Your task to perform on an android device: Open Google Chrome and open the bookmarks view Image 0: 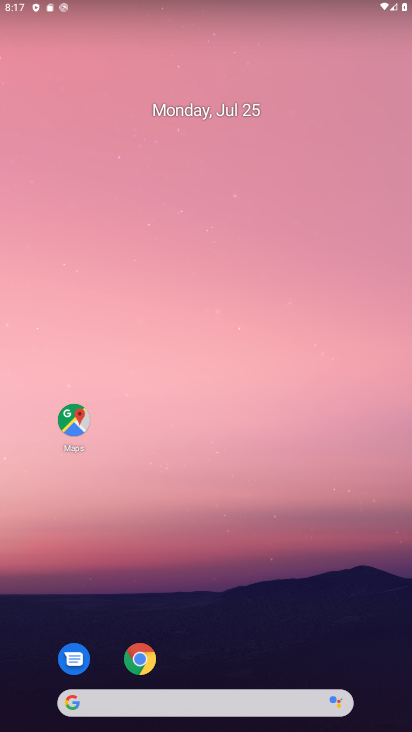
Step 0: drag from (240, 645) to (240, 123)
Your task to perform on an android device: Open Google Chrome and open the bookmarks view Image 1: 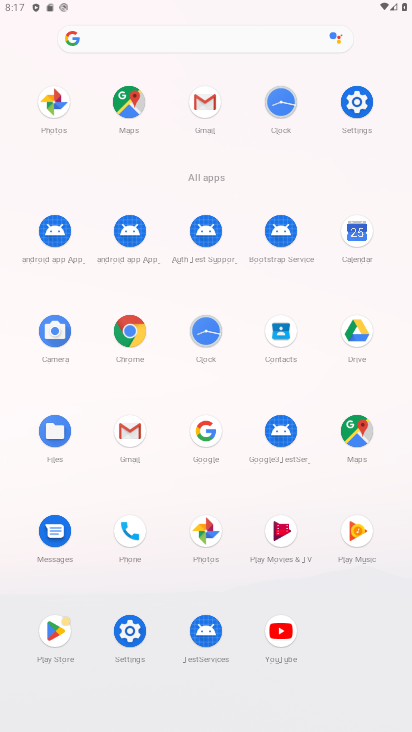
Step 1: click (202, 423)
Your task to perform on an android device: Open Google Chrome and open the bookmarks view Image 2: 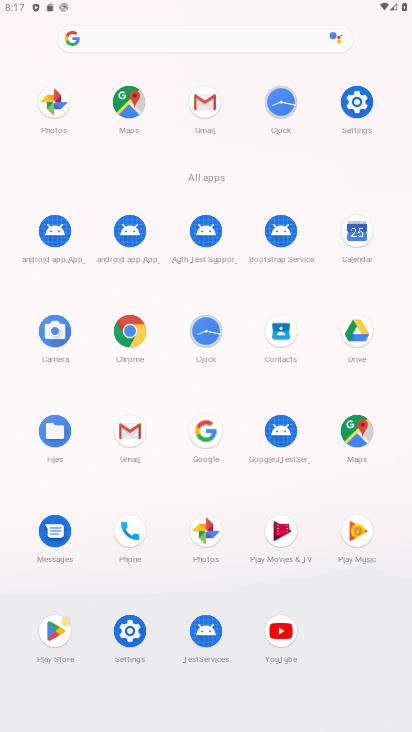
Step 2: click (204, 423)
Your task to perform on an android device: Open Google Chrome and open the bookmarks view Image 3: 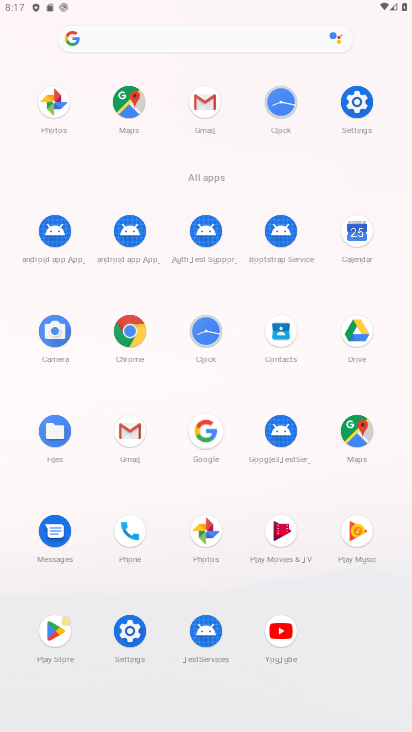
Step 3: click (213, 431)
Your task to perform on an android device: Open Google Chrome and open the bookmarks view Image 4: 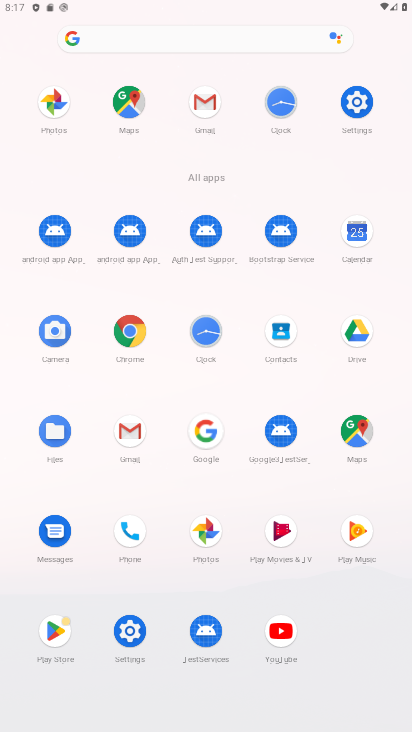
Step 4: click (213, 431)
Your task to perform on an android device: Open Google Chrome and open the bookmarks view Image 5: 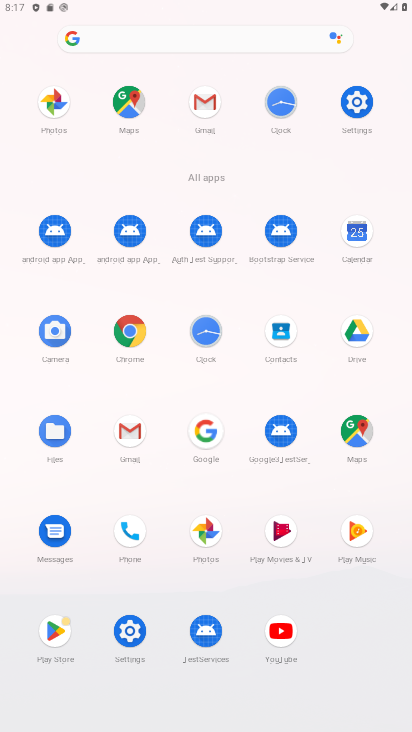
Step 5: click (213, 431)
Your task to perform on an android device: Open Google Chrome and open the bookmarks view Image 6: 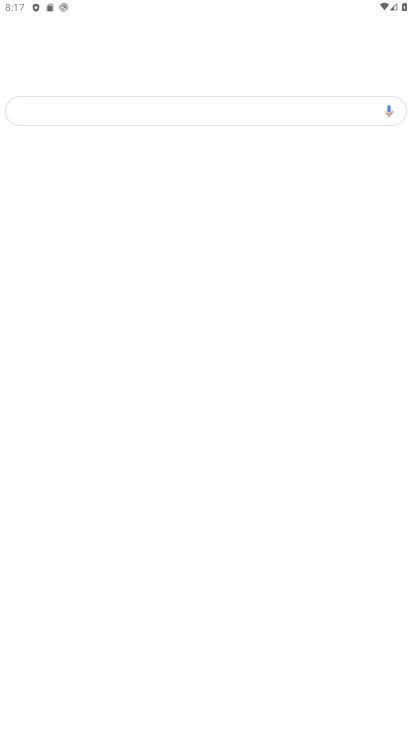
Step 6: click (213, 430)
Your task to perform on an android device: Open Google Chrome and open the bookmarks view Image 7: 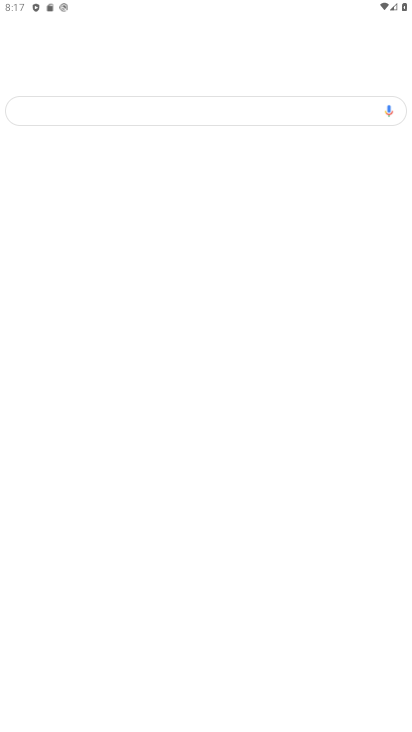
Step 7: click (211, 426)
Your task to perform on an android device: Open Google Chrome and open the bookmarks view Image 8: 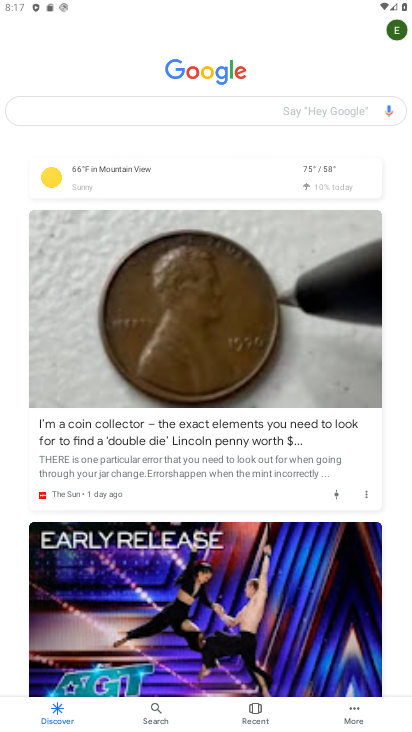
Step 8: press back button
Your task to perform on an android device: Open Google Chrome and open the bookmarks view Image 9: 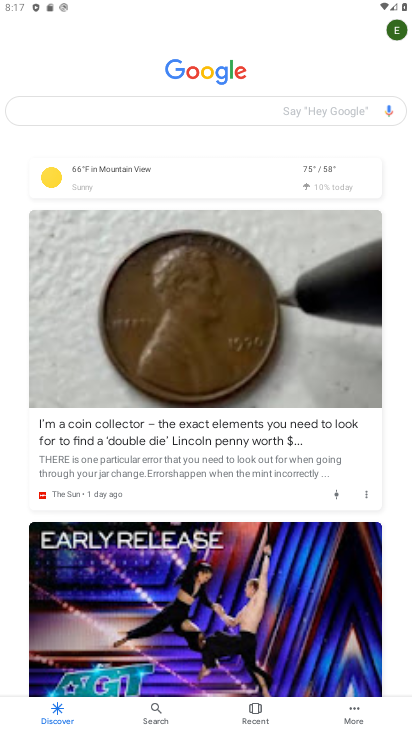
Step 9: press back button
Your task to perform on an android device: Open Google Chrome and open the bookmarks view Image 10: 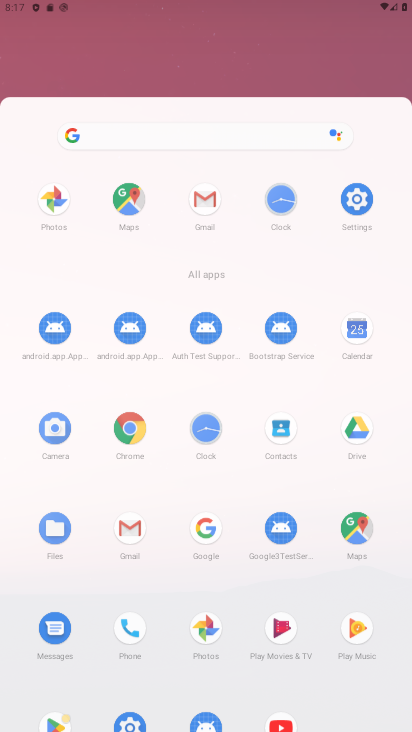
Step 10: press back button
Your task to perform on an android device: Open Google Chrome and open the bookmarks view Image 11: 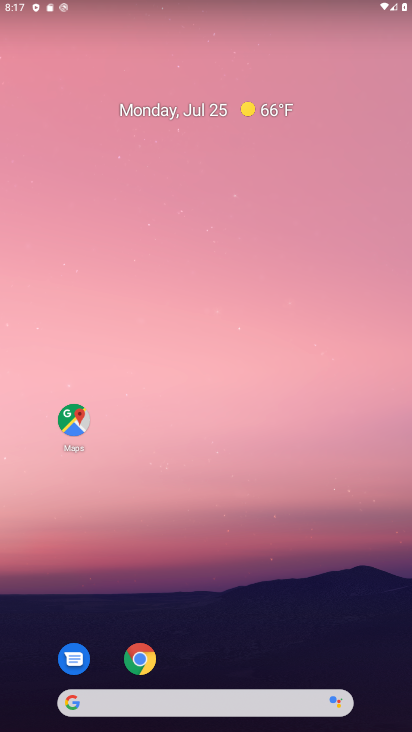
Step 11: drag from (219, 535) to (195, 75)
Your task to perform on an android device: Open Google Chrome and open the bookmarks view Image 12: 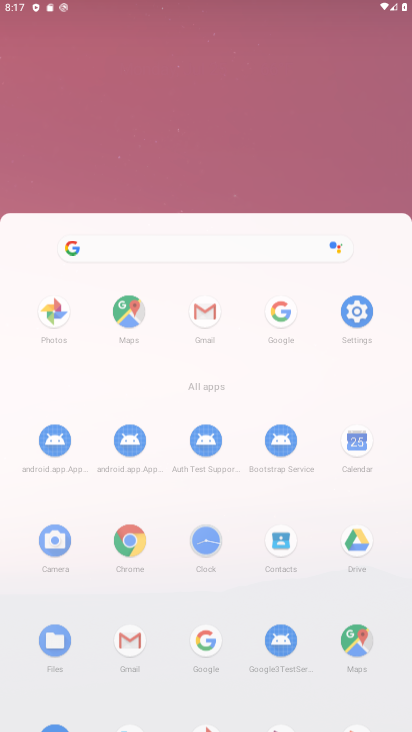
Step 12: drag from (195, 360) to (195, 59)
Your task to perform on an android device: Open Google Chrome and open the bookmarks view Image 13: 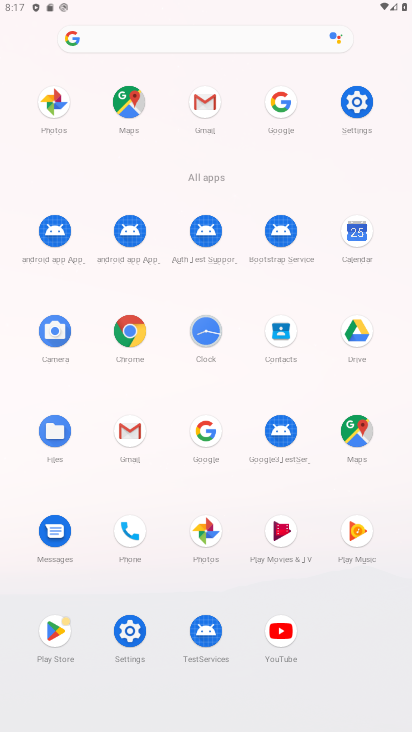
Step 13: drag from (258, 440) to (258, 43)
Your task to perform on an android device: Open Google Chrome and open the bookmarks view Image 14: 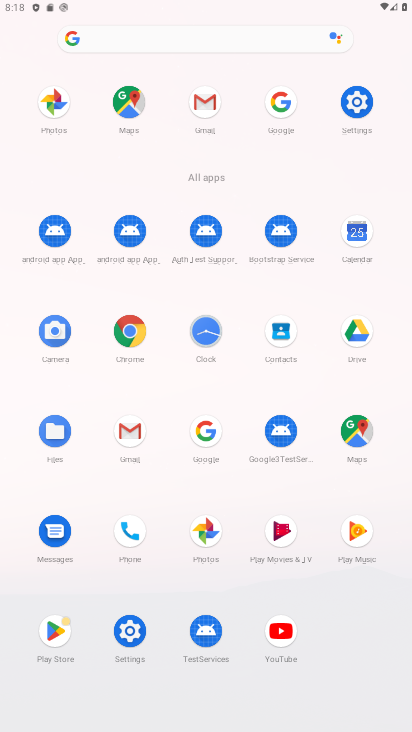
Step 14: click (120, 329)
Your task to perform on an android device: Open Google Chrome and open the bookmarks view Image 15: 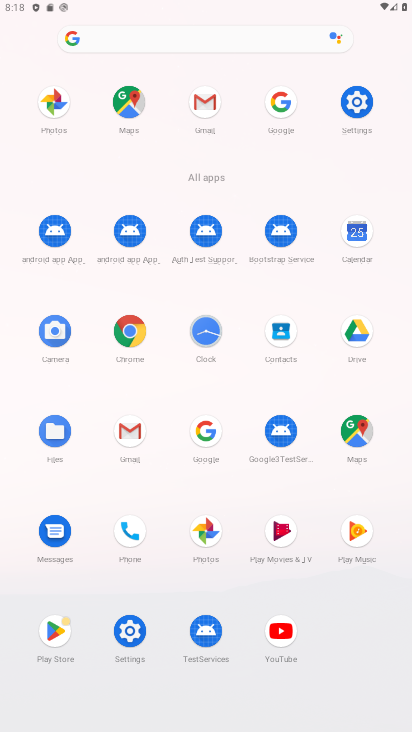
Step 15: click (131, 337)
Your task to perform on an android device: Open Google Chrome and open the bookmarks view Image 16: 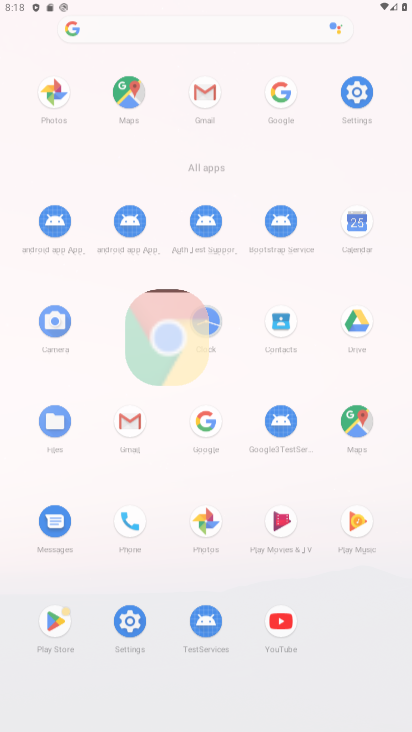
Step 16: click (133, 339)
Your task to perform on an android device: Open Google Chrome and open the bookmarks view Image 17: 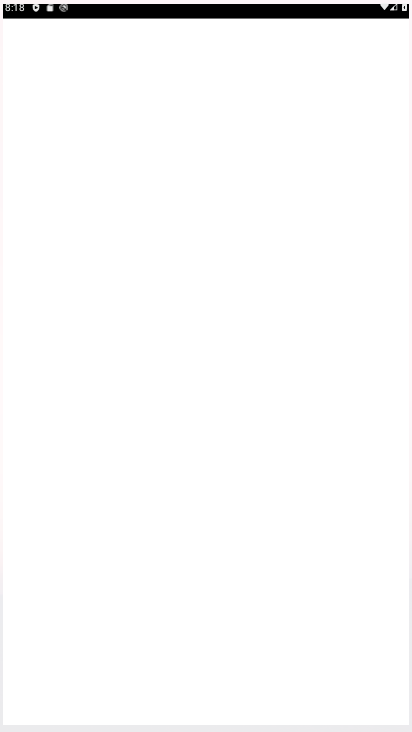
Step 17: click (134, 339)
Your task to perform on an android device: Open Google Chrome and open the bookmarks view Image 18: 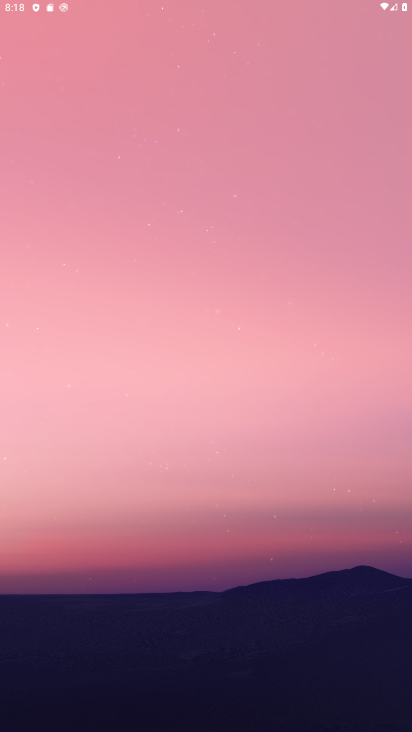
Step 18: click (136, 337)
Your task to perform on an android device: Open Google Chrome and open the bookmarks view Image 19: 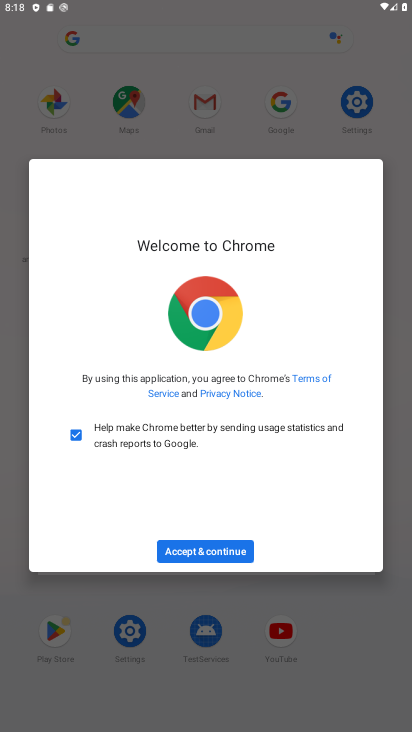
Step 19: click (211, 549)
Your task to perform on an android device: Open Google Chrome and open the bookmarks view Image 20: 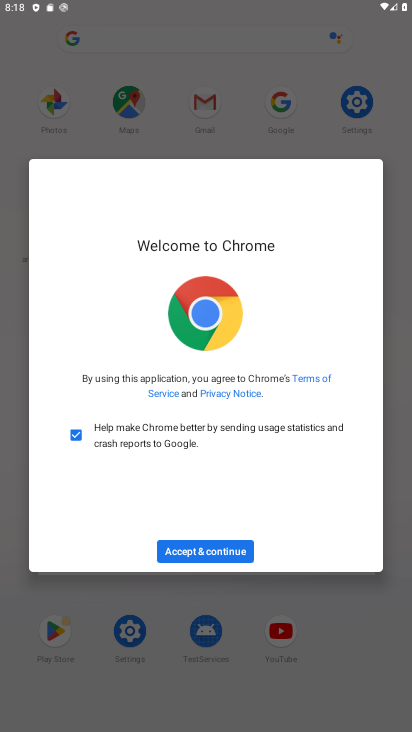
Step 20: click (211, 549)
Your task to perform on an android device: Open Google Chrome and open the bookmarks view Image 21: 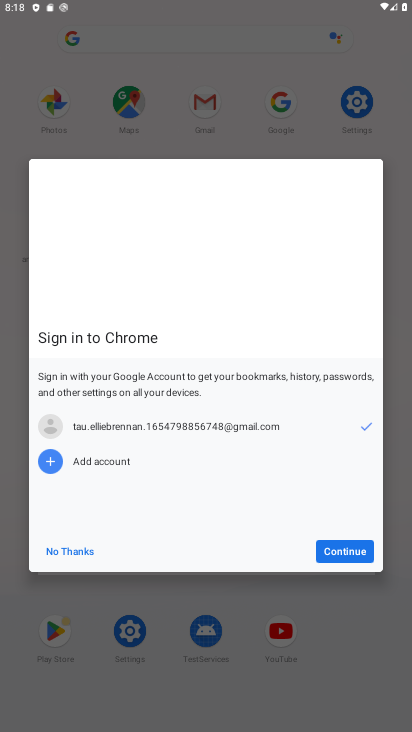
Step 21: click (67, 544)
Your task to perform on an android device: Open Google Chrome and open the bookmarks view Image 22: 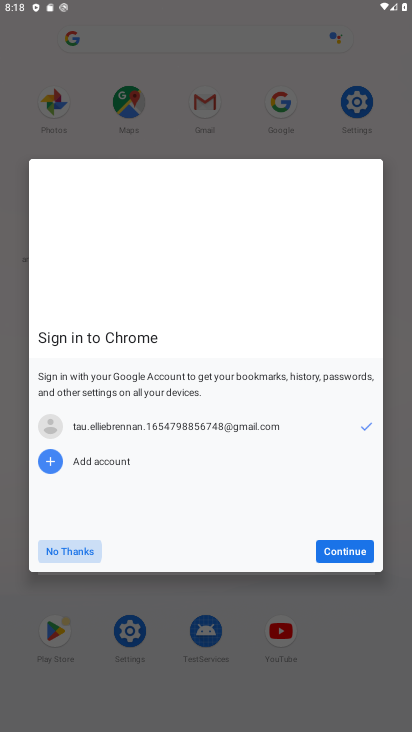
Step 22: click (66, 544)
Your task to perform on an android device: Open Google Chrome and open the bookmarks view Image 23: 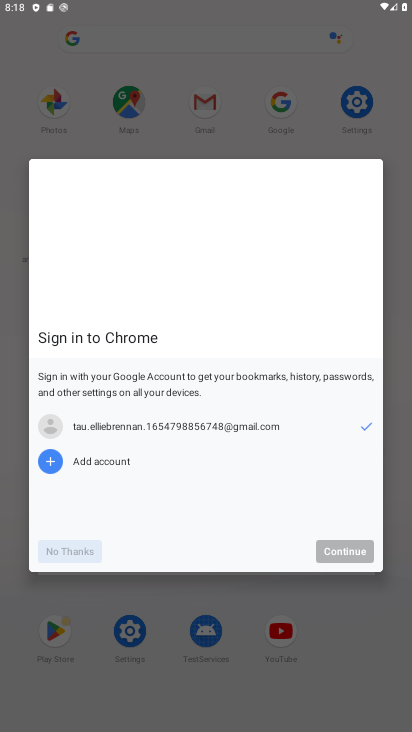
Step 23: click (65, 543)
Your task to perform on an android device: Open Google Chrome and open the bookmarks view Image 24: 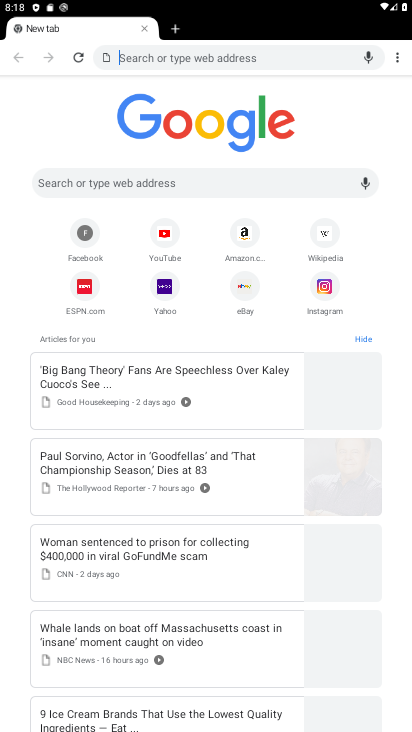
Step 24: drag from (401, 53) to (280, 112)
Your task to perform on an android device: Open Google Chrome and open the bookmarks view Image 25: 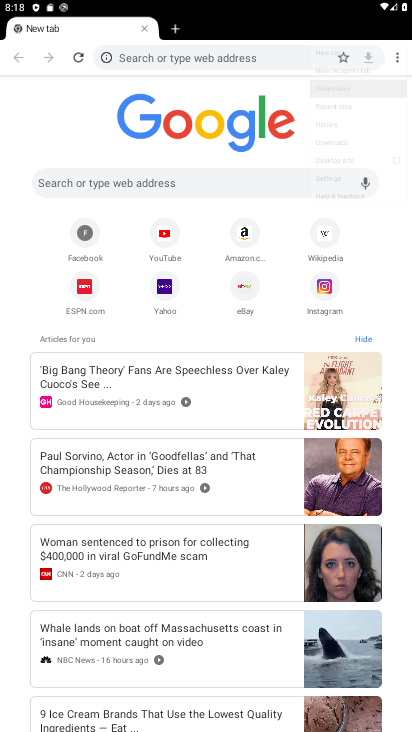
Step 25: click (279, 113)
Your task to perform on an android device: Open Google Chrome and open the bookmarks view Image 26: 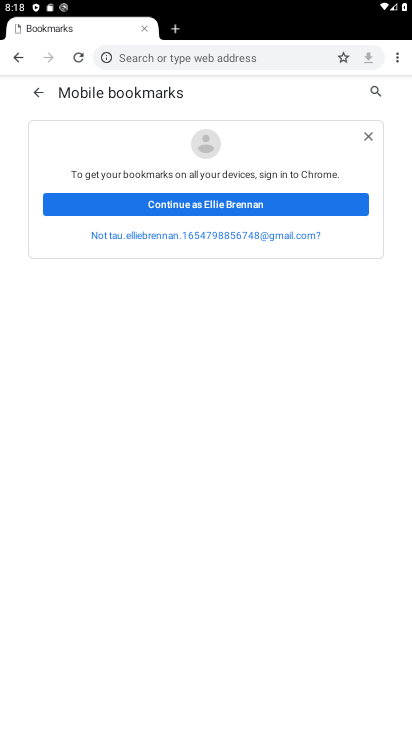
Step 26: task complete